Your task to perform on an android device: Open Chrome and go to the settings page Image 0: 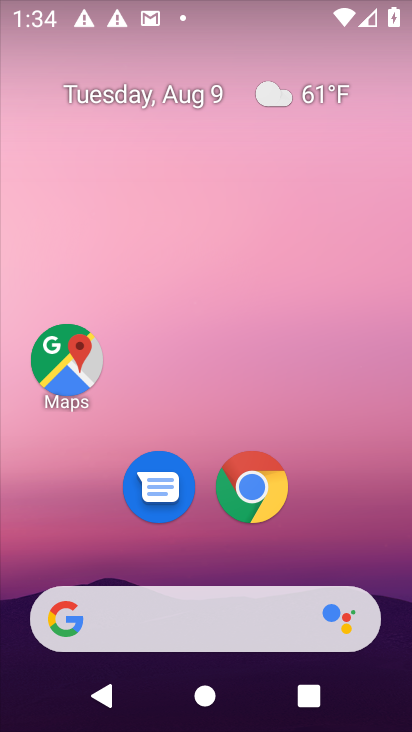
Step 0: drag from (264, 618) to (249, 61)
Your task to perform on an android device: Open Chrome and go to the settings page Image 1: 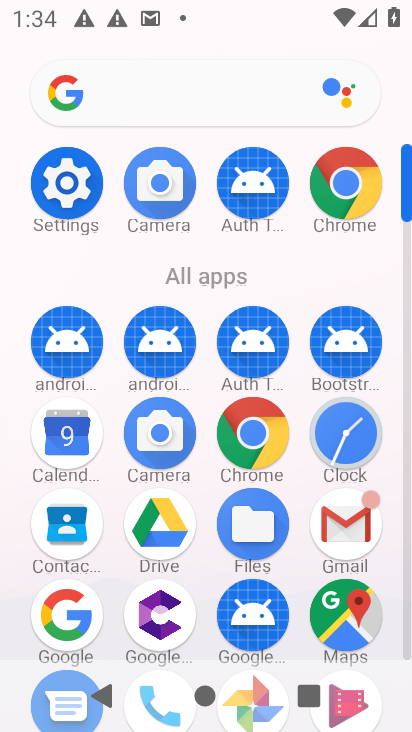
Step 1: click (272, 407)
Your task to perform on an android device: Open Chrome and go to the settings page Image 2: 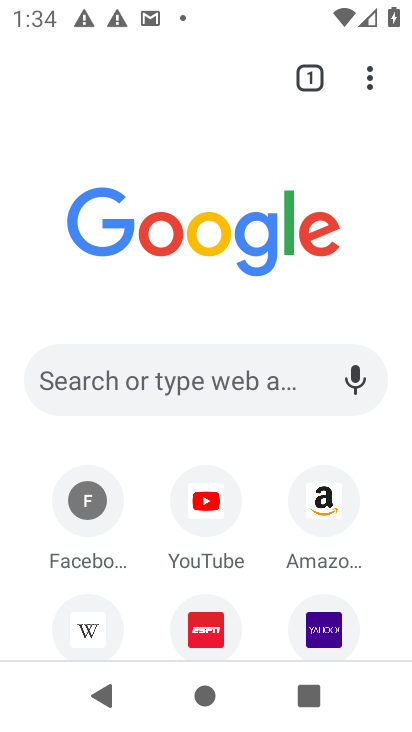
Step 2: click (375, 69)
Your task to perform on an android device: Open Chrome and go to the settings page Image 3: 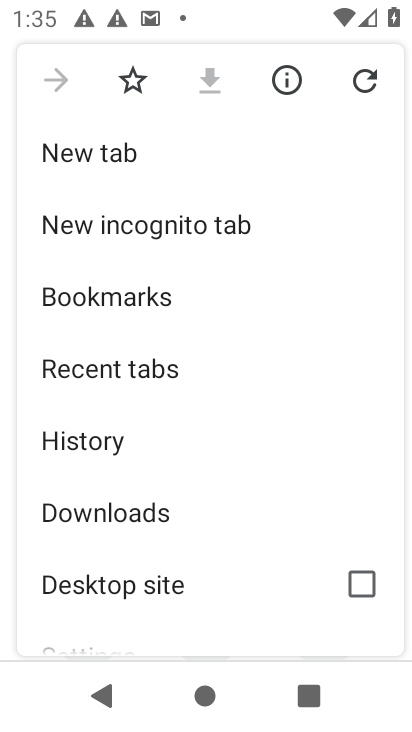
Step 3: click (86, 644)
Your task to perform on an android device: Open Chrome and go to the settings page Image 4: 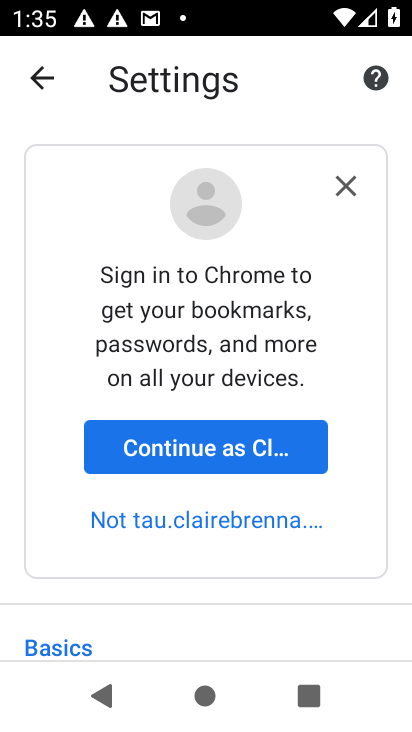
Step 4: task complete